Your task to perform on an android device: open wifi settings Image 0: 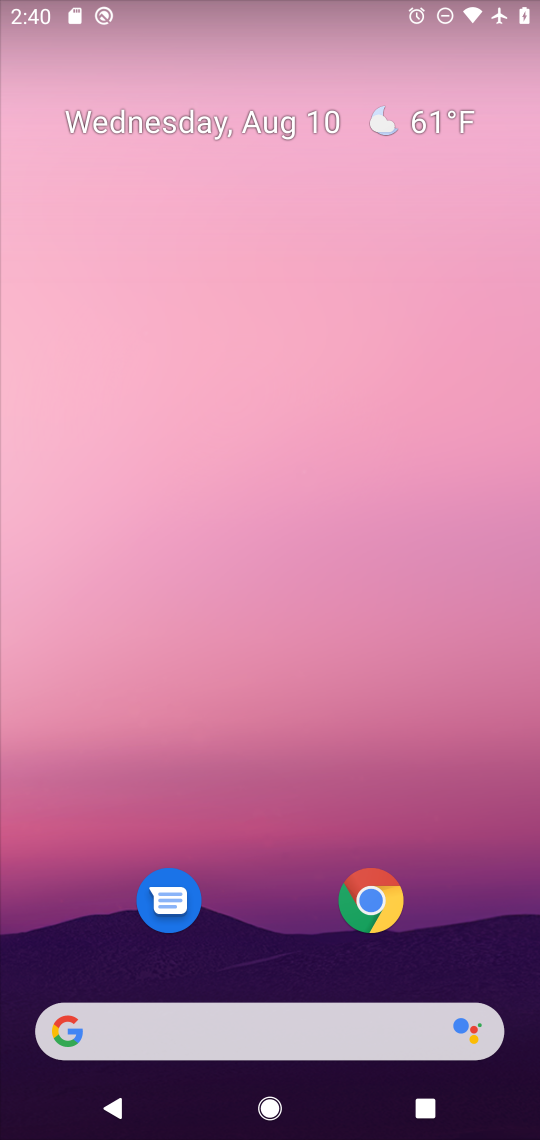
Step 0: drag from (258, 862) to (285, 1)
Your task to perform on an android device: open wifi settings Image 1: 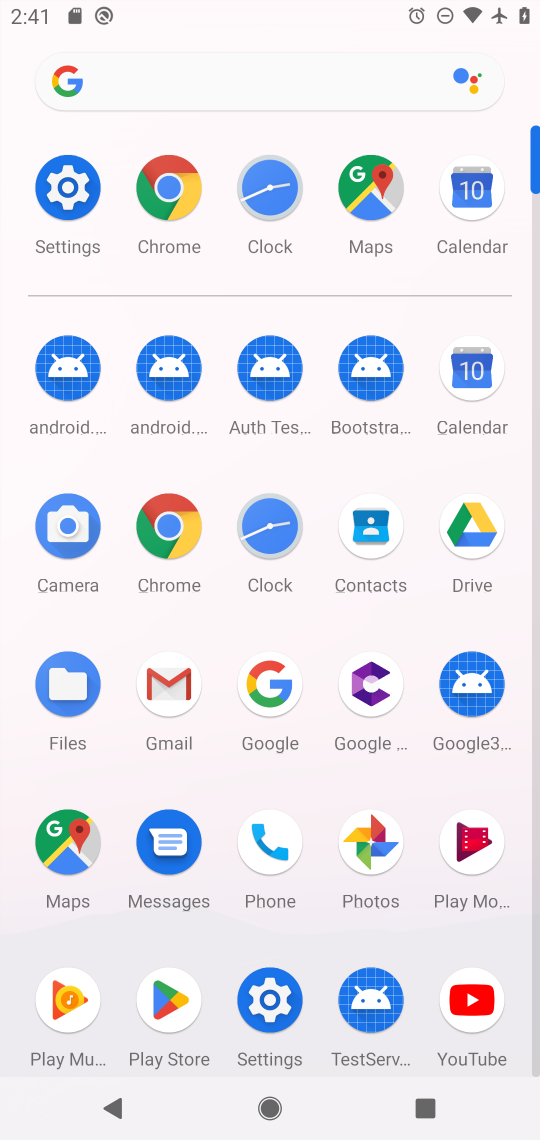
Step 1: click (76, 182)
Your task to perform on an android device: open wifi settings Image 2: 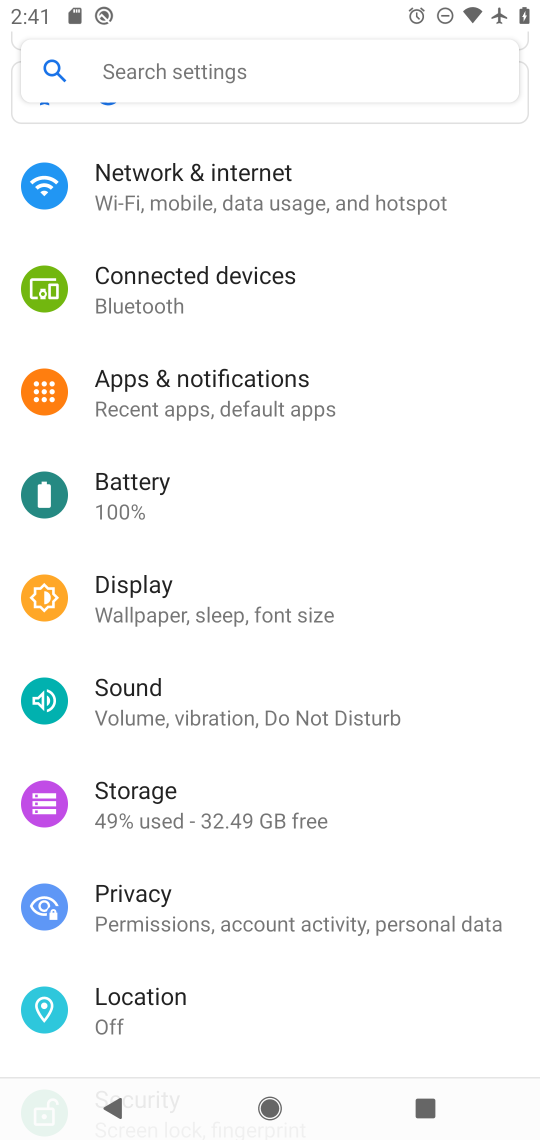
Step 2: click (181, 178)
Your task to perform on an android device: open wifi settings Image 3: 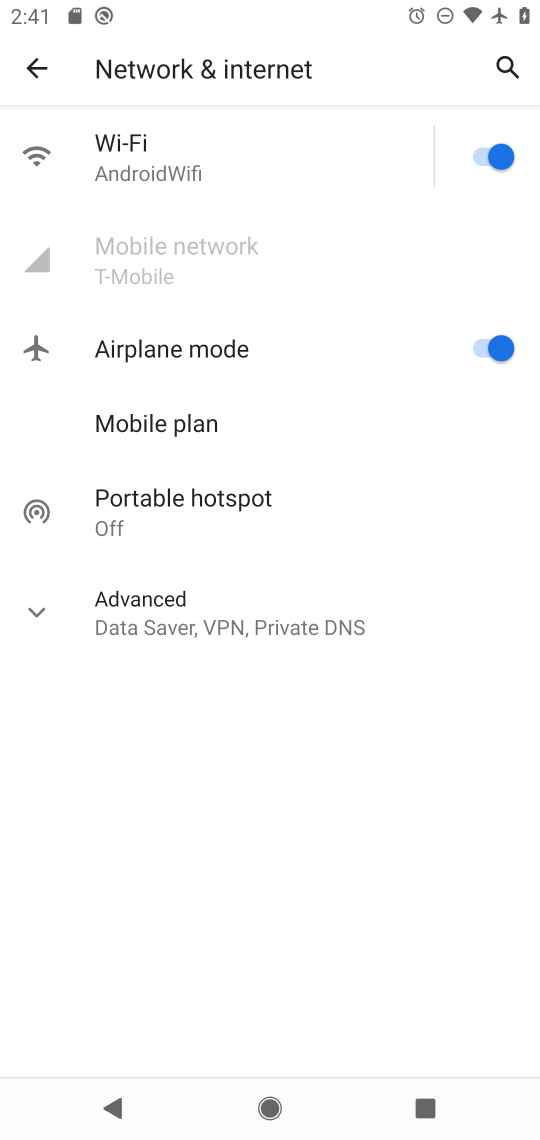
Step 3: click (181, 175)
Your task to perform on an android device: open wifi settings Image 4: 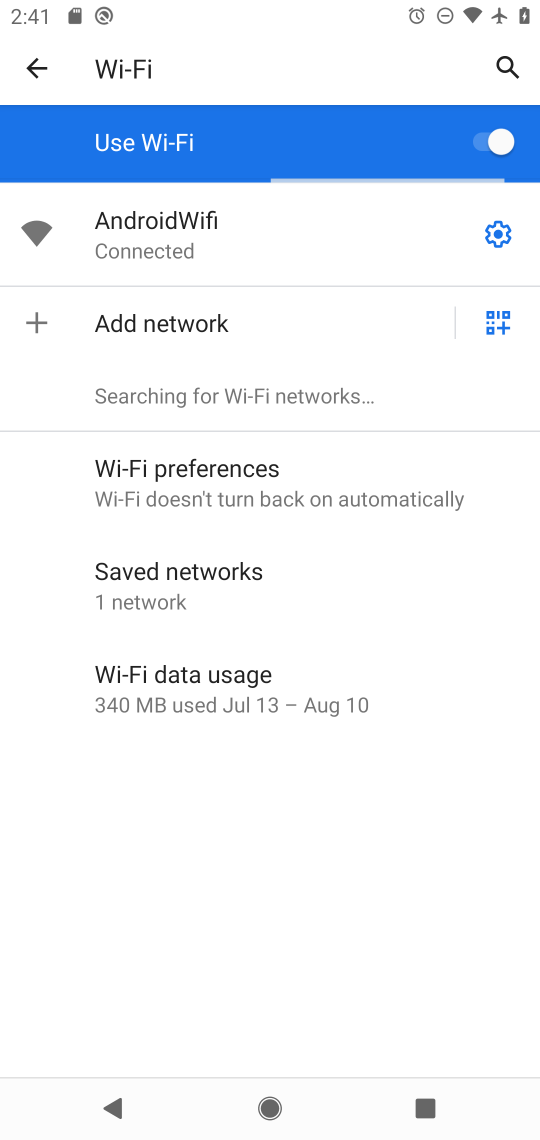
Step 4: task complete